Your task to perform on an android device: Show me popular videos on Youtube Image 0: 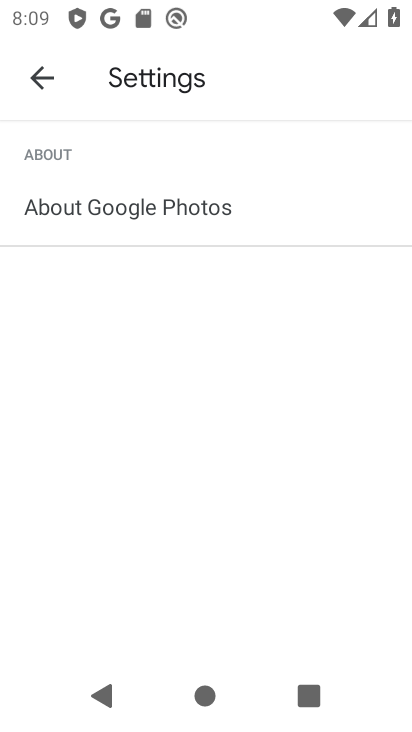
Step 0: press back button
Your task to perform on an android device: Show me popular videos on Youtube Image 1: 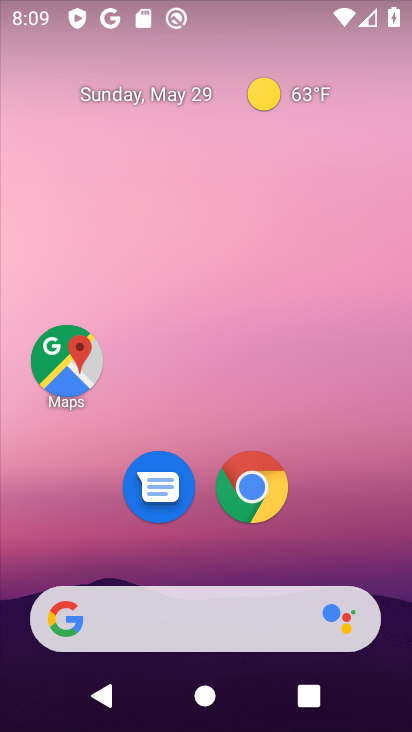
Step 1: drag from (336, 539) to (319, 95)
Your task to perform on an android device: Show me popular videos on Youtube Image 2: 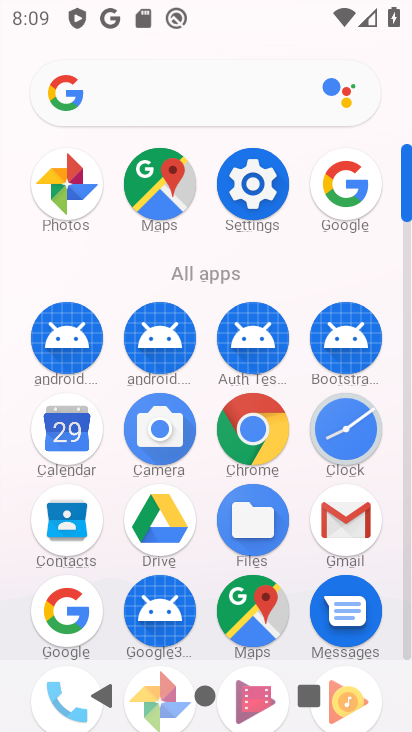
Step 2: drag from (305, 491) to (308, 151)
Your task to perform on an android device: Show me popular videos on Youtube Image 3: 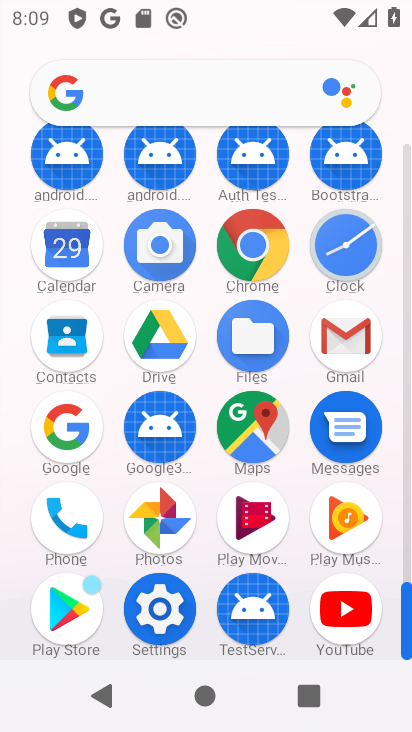
Step 3: click (346, 608)
Your task to perform on an android device: Show me popular videos on Youtube Image 4: 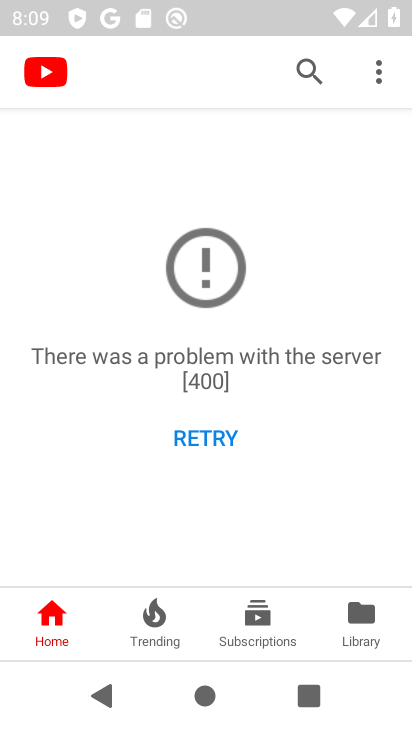
Step 4: click (210, 438)
Your task to perform on an android device: Show me popular videos on Youtube Image 5: 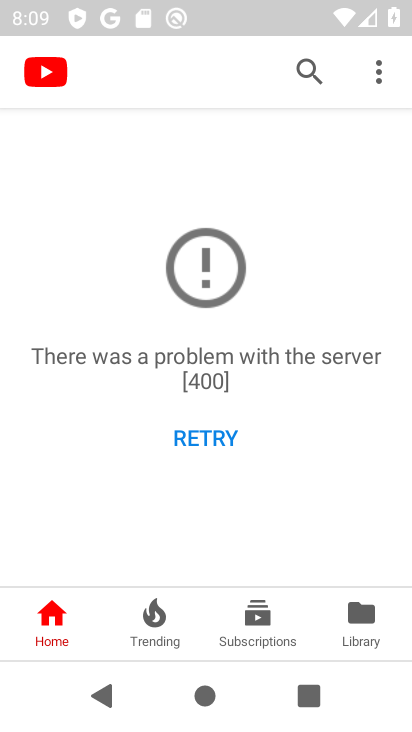
Step 5: click (210, 438)
Your task to perform on an android device: Show me popular videos on Youtube Image 6: 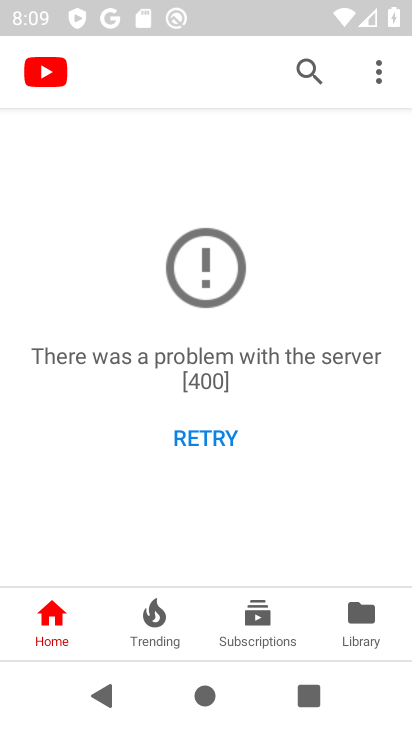
Step 6: click (210, 438)
Your task to perform on an android device: Show me popular videos on Youtube Image 7: 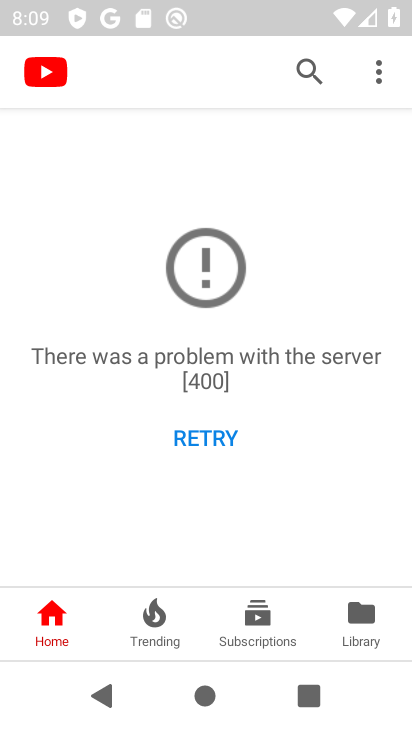
Step 7: click (210, 438)
Your task to perform on an android device: Show me popular videos on Youtube Image 8: 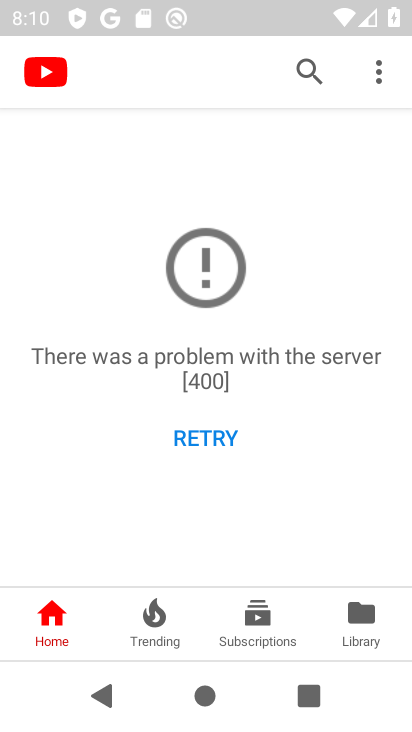
Step 8: task complete